Your task to perform on an android device: toggle data saver in the chrome app Image 0: 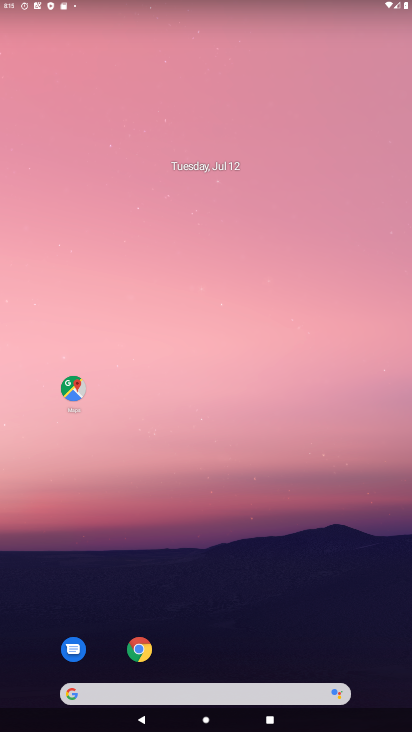
Step 0: drag from (296, 638) to (271, 211)
Your task to perform on an android device: toggle data saver in the chrome app Image 1: 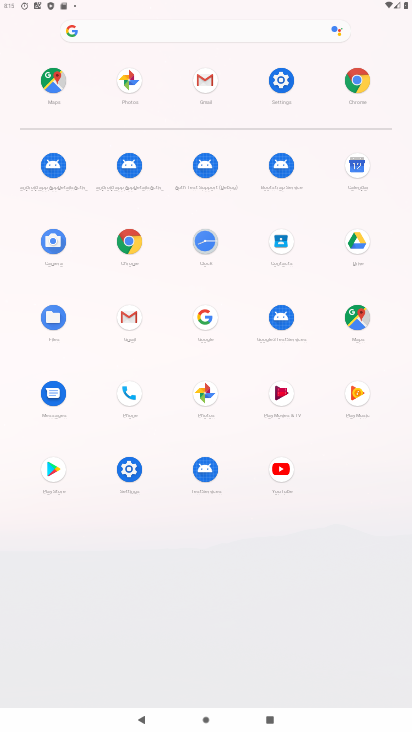
Step 1: click (132, 241)
Your task to perform on an android device: toggle data saver in the chrome app Image 2: 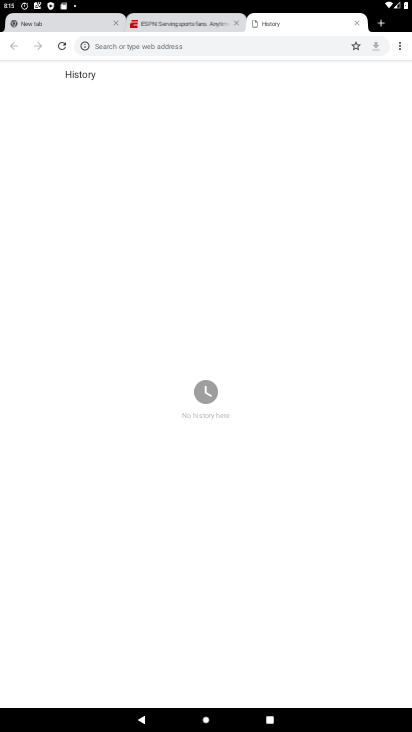
Step 2: drag from (396, 39) to (313, 245)
Your task to perform on an android device: toggle data saver in the chrome app Image 3: 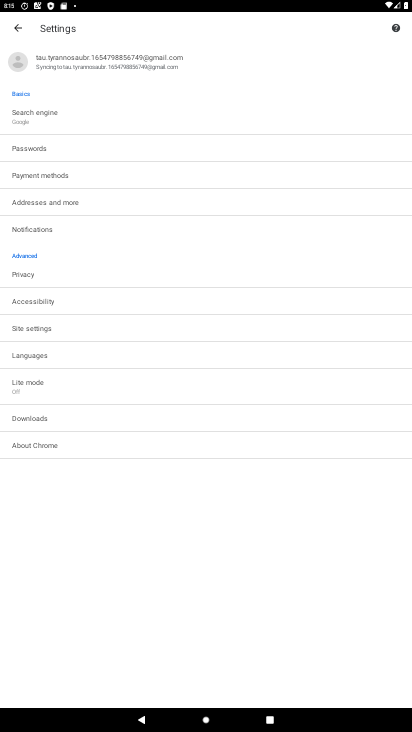
Step 3: click (32, 381)
Your task to perform on an android device: toggle data saver in the chrome app Image 4: 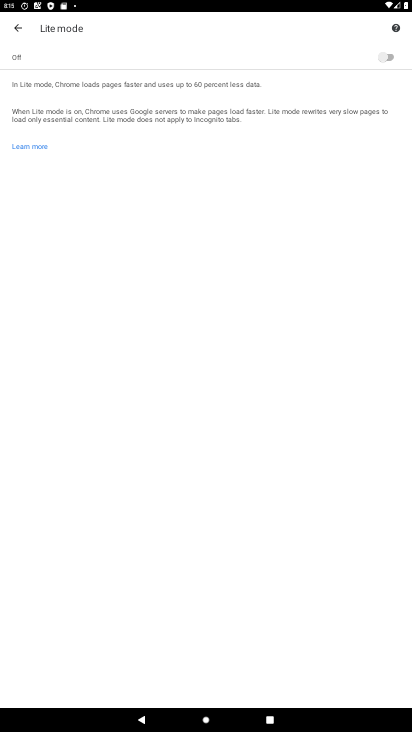
Step 4: click (398, 55)
Your task to perform on an android device: toggle data saver in the chrome app Image 5: 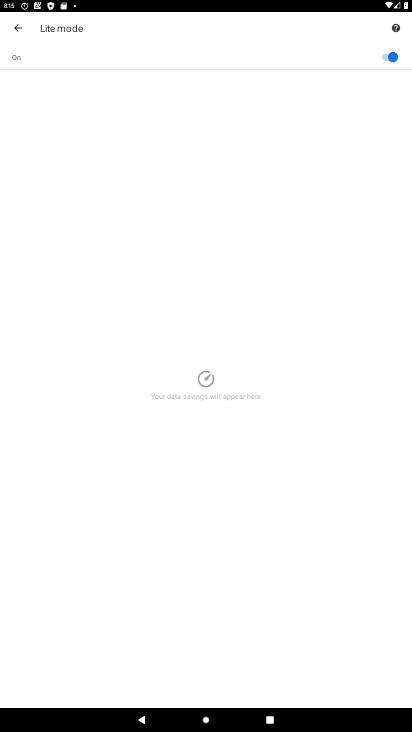
Step 5: task complete